Your task to perform on an android device: Set the phone to "Do not disturb". Image 0: 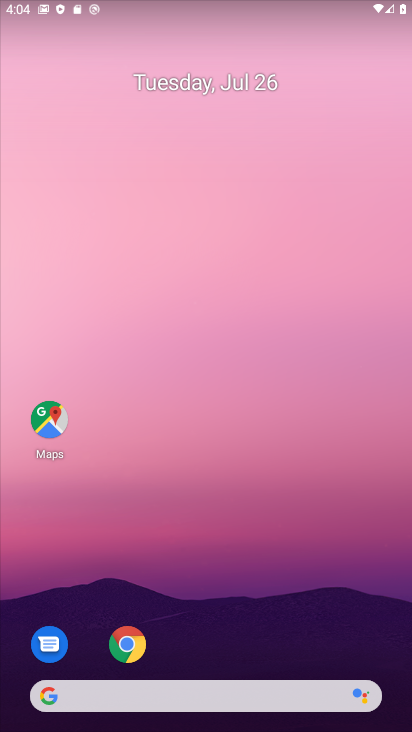
Step 0: drag from (392, 654) to (356, 279)
Your task to perform on an android device: Set the phone to "Do not disturb". Image 1: 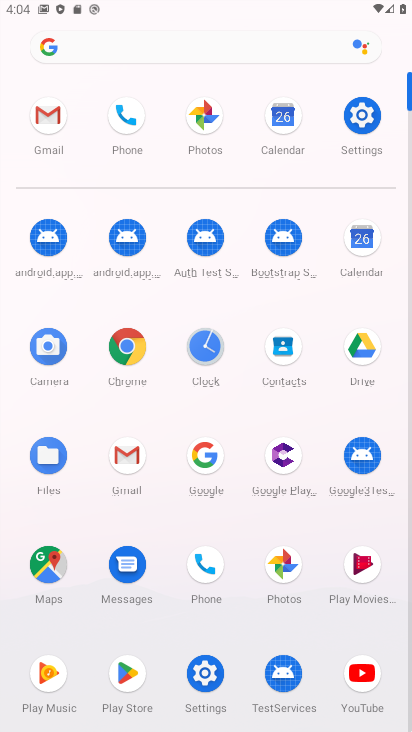
Step 1: click (205, 672)
Your task to perform on an android device: Set the phone to "Do not disturb". Image 2: 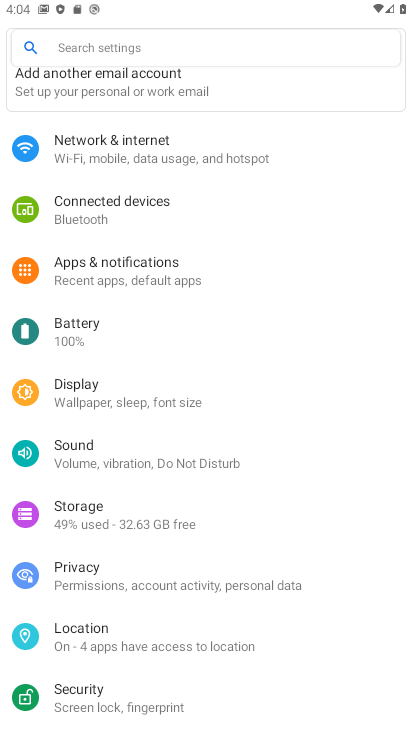
Step 2: click (77, 446)
Your task to perform on an android device: Set the phone to "Do not disturb". Image 3: 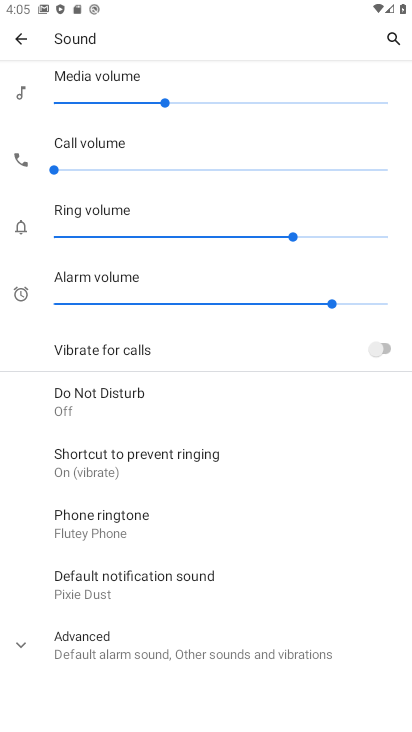
Step 3: click (81, 394)
Your task to perform on an android device: Set the phone to "Do not disturb". Image 4: 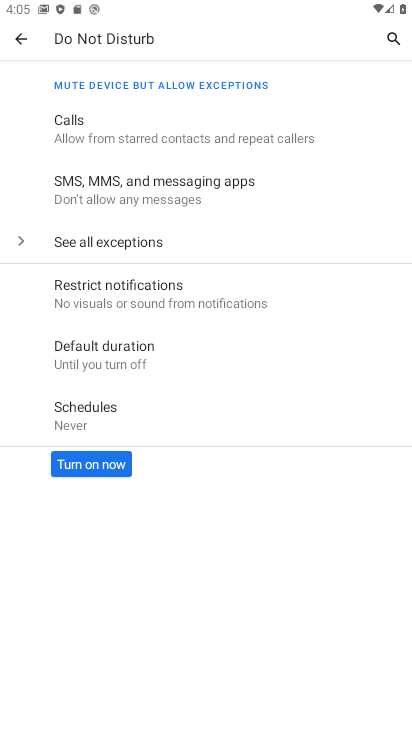
Step 4: click (85, 467)
Your task to perform on an android device: Set the phone to "Do not disturb". Image 5: 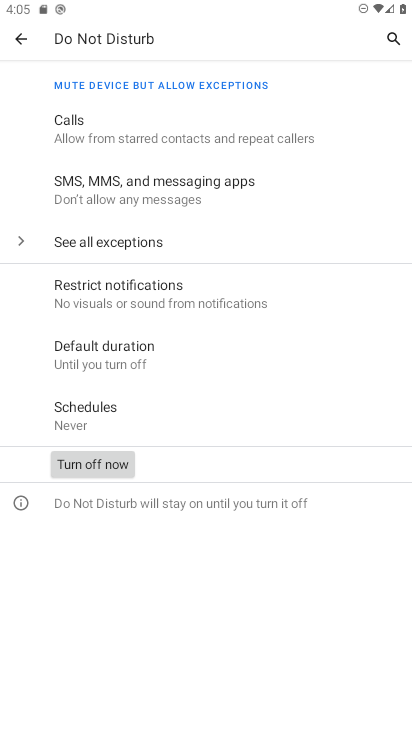
Step 5: task complete